Your task to perform on an android device: turn on notifications settings in the gmail app Image 0: 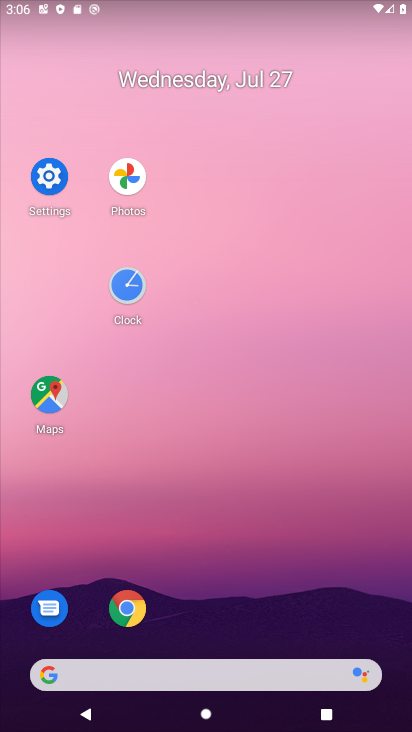
Step 0: drag from (284, 553) to (307, 87)
Your task to perform on an android device: turn on notifications settings in the gmail app Image 1: 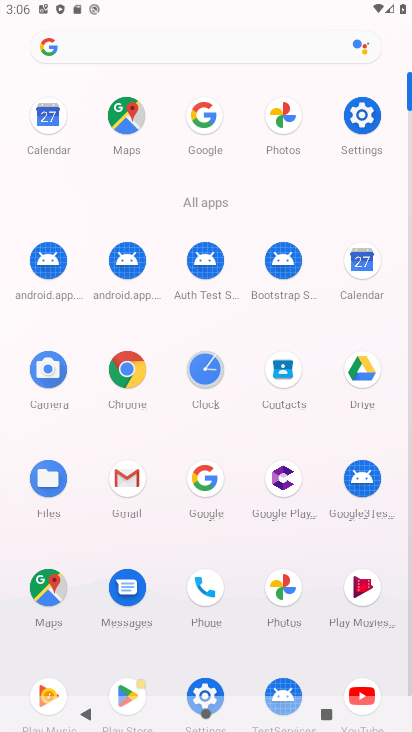
Step 1: drag from (125, 492) to (240, 202)
Your task to perform on an android device: turn on notifications settings in the gmail app Image 2: 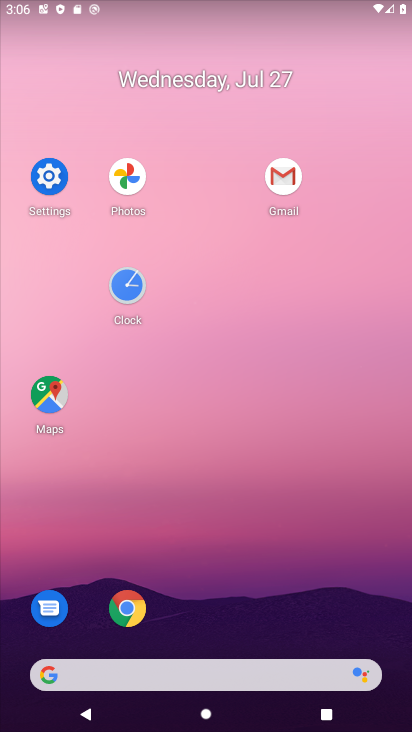
Step 2: click (288, 176)
Your task to perform on an android device: turn on notifications settings in the gmail app Image 3: 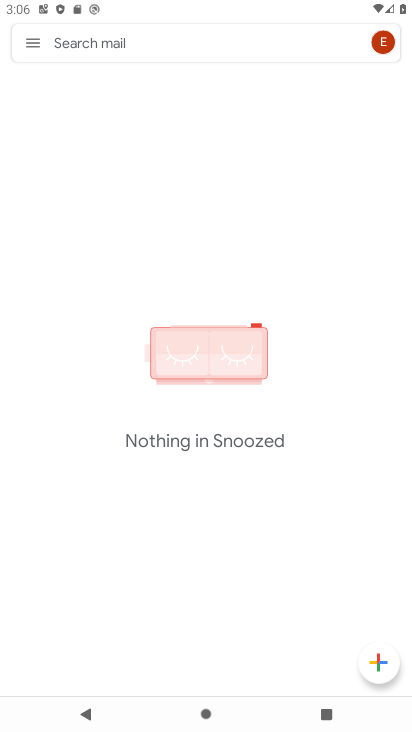
Step 3: click (21, 41)
Your task to perform on an android device: turn on notifications settings in the gmail app Image 4: 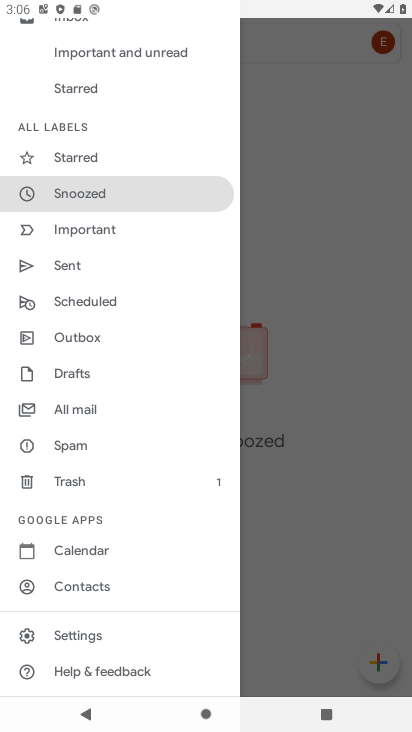
Step 4: click (115, 625)
Your task to perform on an android device: turn on notifications settings in the gmail app Image 5: 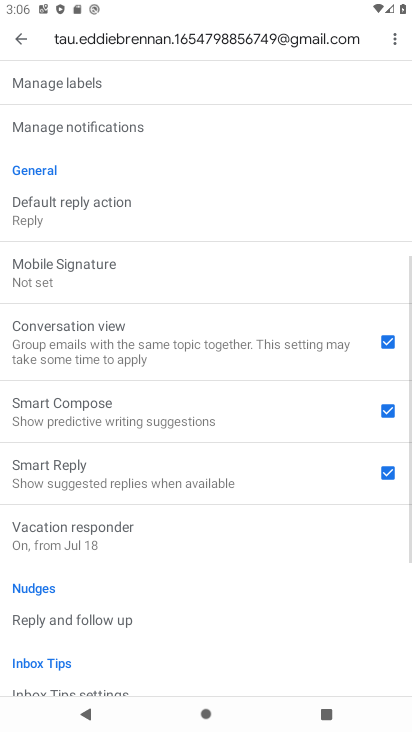
Step 5: click (111, 124)
Your task to perform on an android device: turn on notifications settings in the gmail app Image 6: 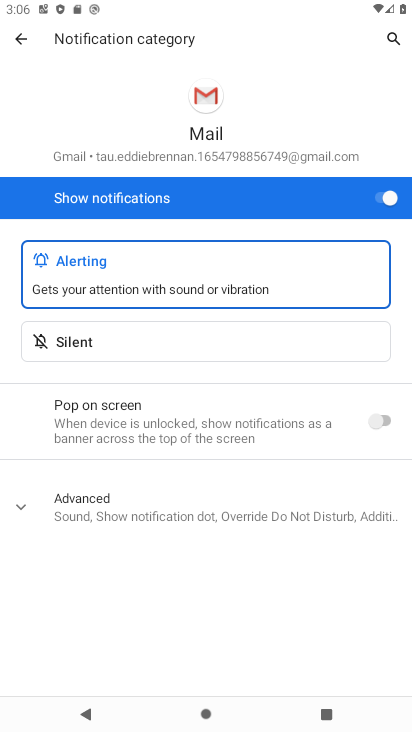
Step 6: task complete